Your task to perform on an android device: turn off location Image 0: 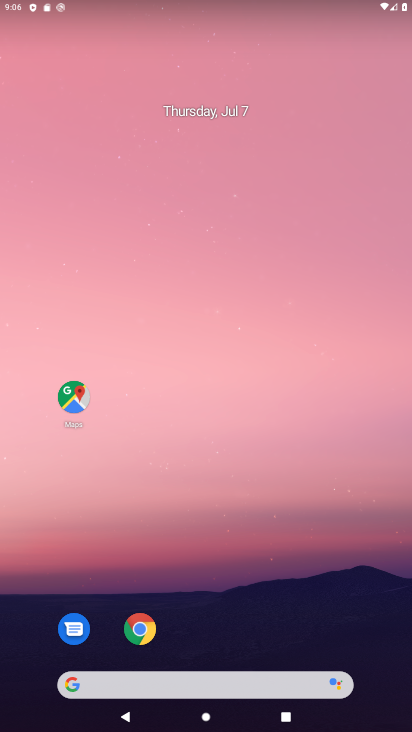
Step 0: drag from (285, 570) to (247, 40)
Your task to perform on an android device: turn off location Image 1: 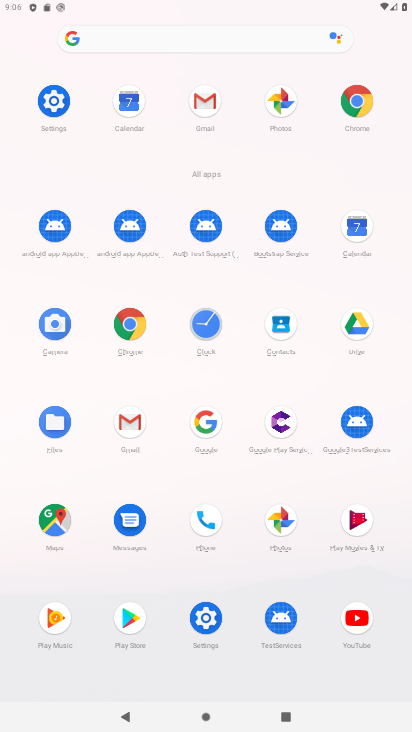
Step 1: click (54, 99)
Your task to perform on an android device: turn off location Image 2: 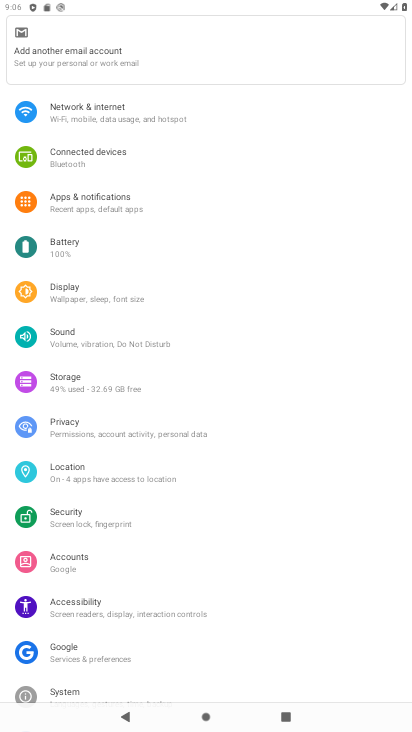
Step 2: click (74, 464)
Your task to perform on an android device: turn off location Image 3: 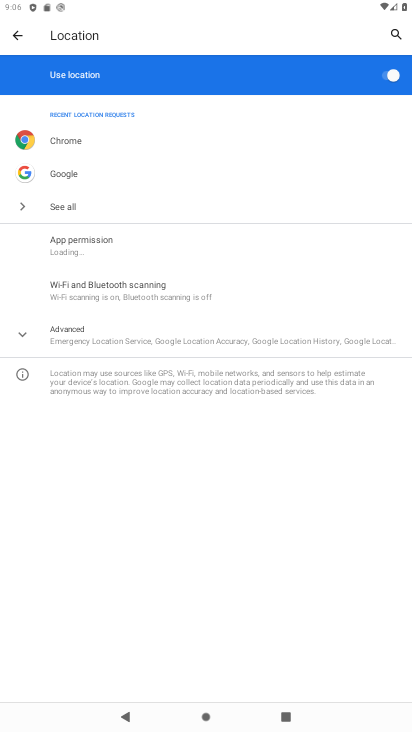
Step 3: click (387, 76)
Your task to perform on an android device: turn off location Image 4: 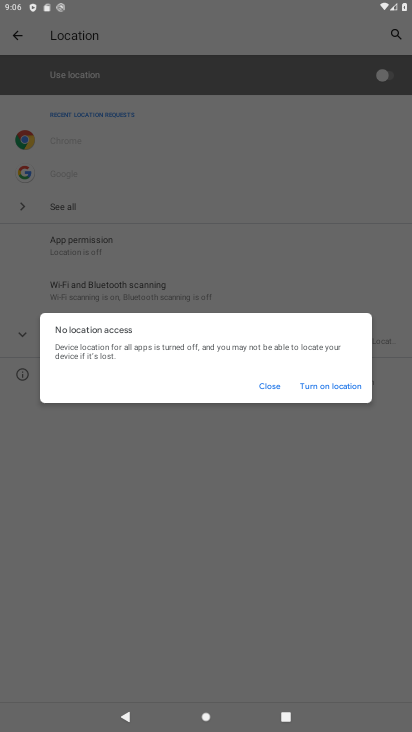
Step 4: task complete